Your task to perform on an android device: Open internet settings Image 0: 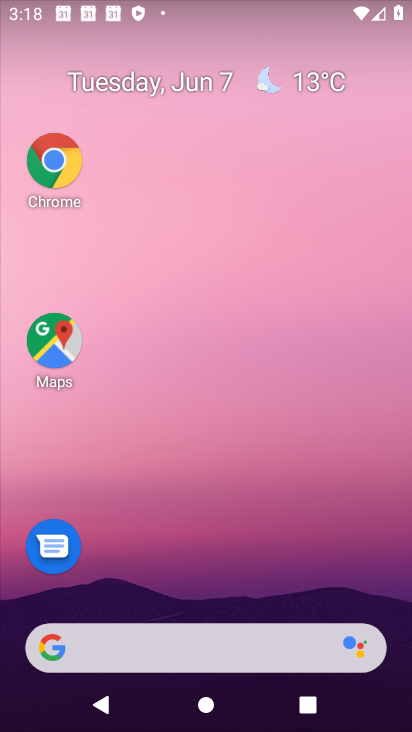
Step 0: drag from (314, 532) to (250, 6)
Your task to perform on an android device: Open internet settings Image 1: 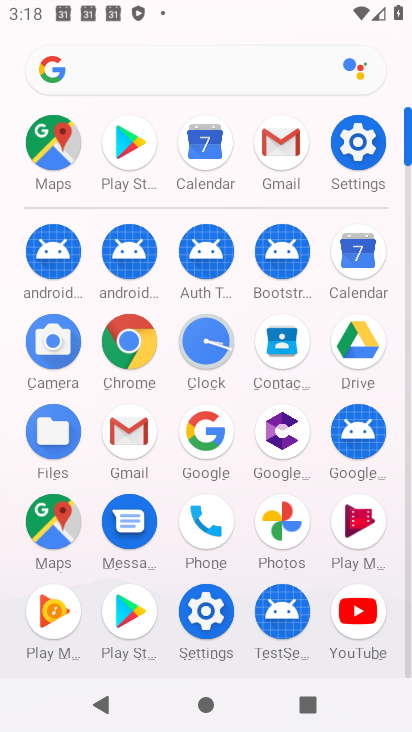
Step 1: click (368, 146)
Your task to perform on an android device: Open internet settings Image 2: 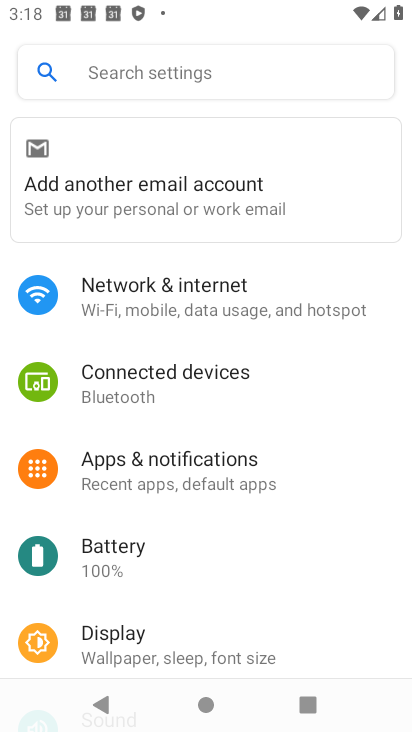
Step 2: click (155, 309)
Your task to perform on an android device: Open internet settings Image 3: 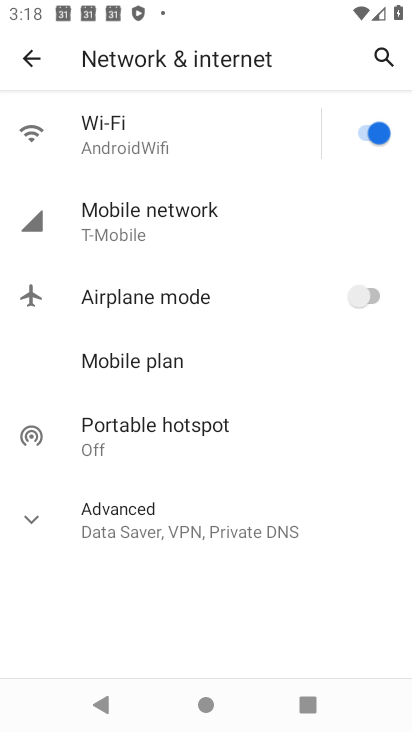
Step 3: task complete